Your task to perform on an android device: Open network settings Image 0: 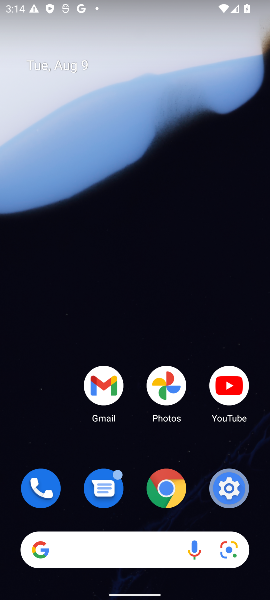
Step 0: drag from (204, 347) to (196, 5)
Your task to perform on an android device: Open network settings Image 1: 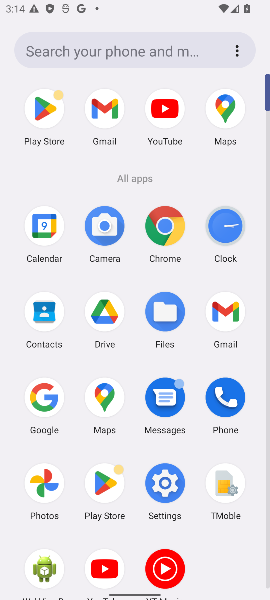
Step 1: click (163, 501)
Your task to perform on an android device: Open network settings Image 2: 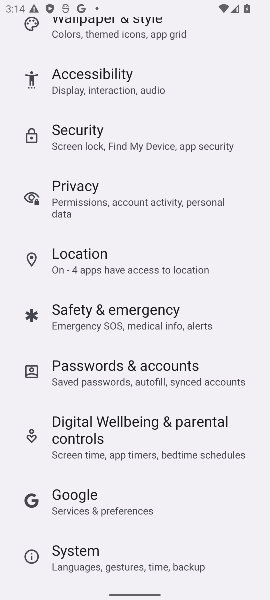
Step 2: drag from (157, 82) to (193, 580)
Your task to perform on an android device: Open network settings Image 3: 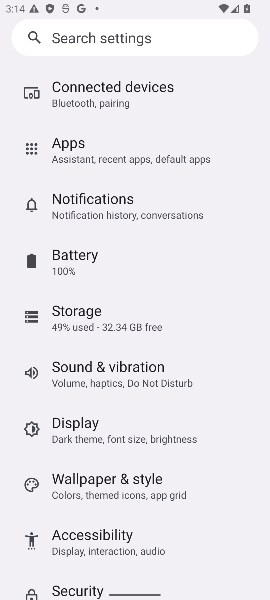
Step 3: drag from (153, 91) to (159, 465)
Your task to perform on an android device: Open network settings Image 4: 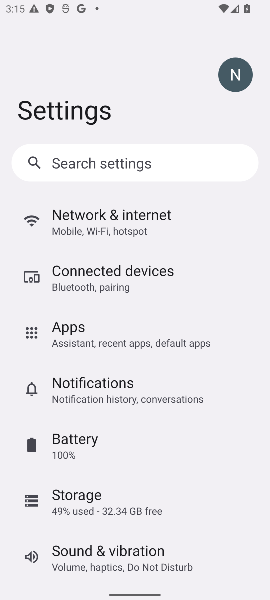
Step 4: click (141, 217)
Your task to perform on an android device: Open network settings Image 5: 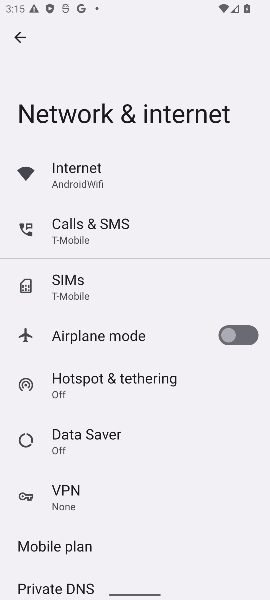
Step 5: click (125, 178)
Your task to perform on an android device: Open network settings Image 6: 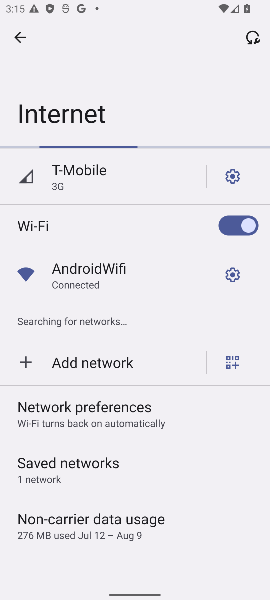
Step 6: task complete